Your task to perform on an android device: Open Yahoo.com Image 0: 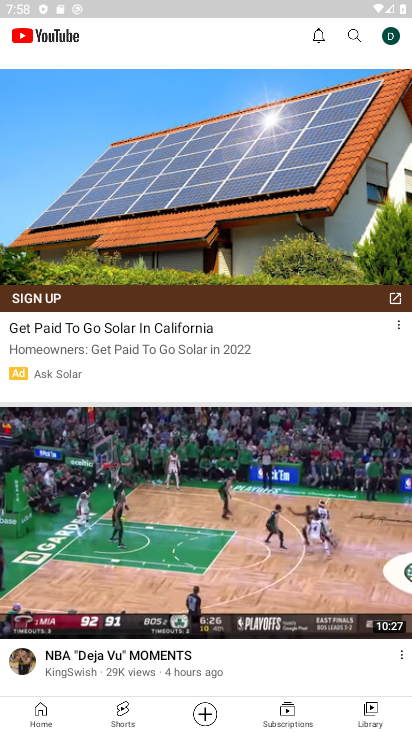
Step 0: press home button
Your task to perform on an android device: Open Yahoo.com Image 1: 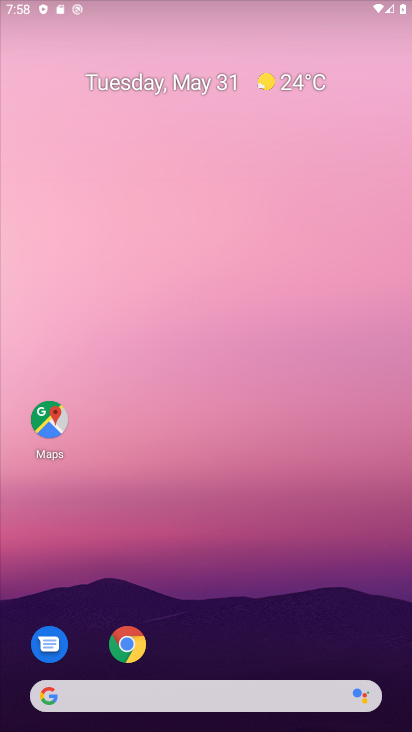
Step 1: drag from (278, 593) to (309, 147)
Your task to perform on an android device: Open Yahoo.com Image 2: 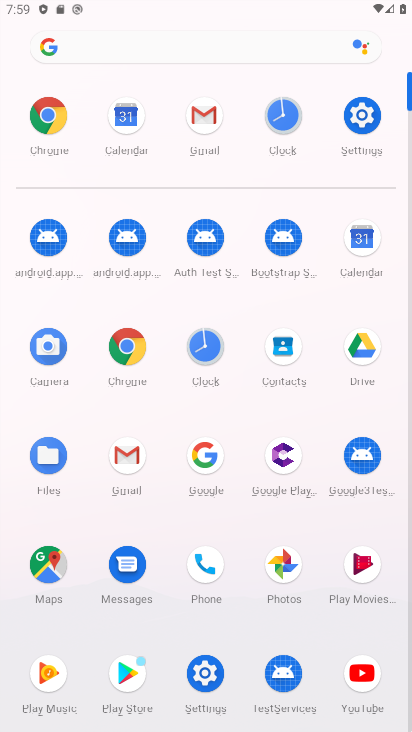
Step 2: click (41, 131)
Your task to perform on an android device: Open Yahoo.com Image 3: 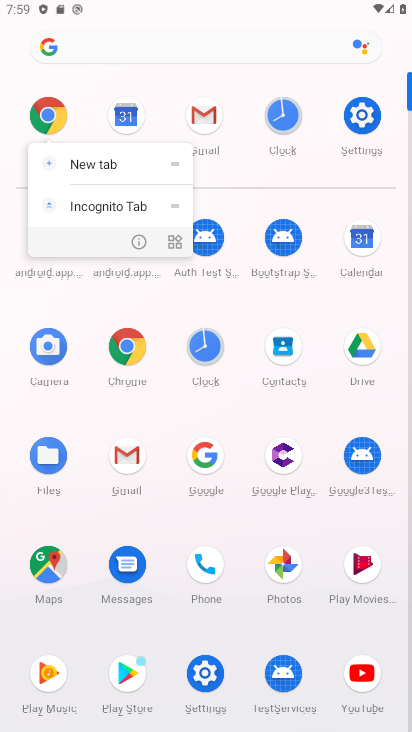
Step 3: click (50, 127)
Your task to perform on an android device: Open Yahoo.com Image 4: 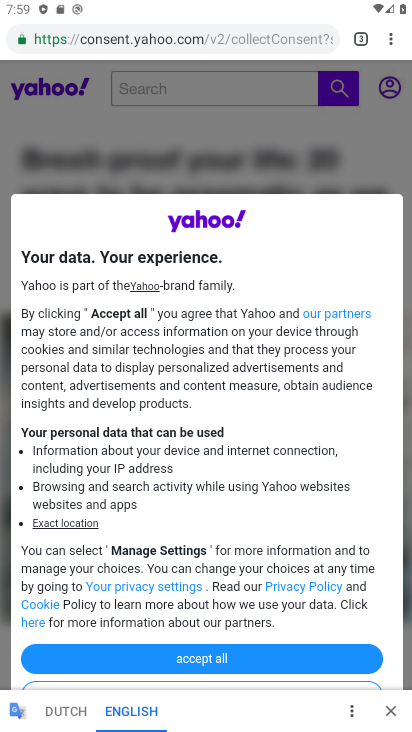
Step 4: click (159, 39)
Your task to perform on an android device: Open Yahoo.com Image 5: 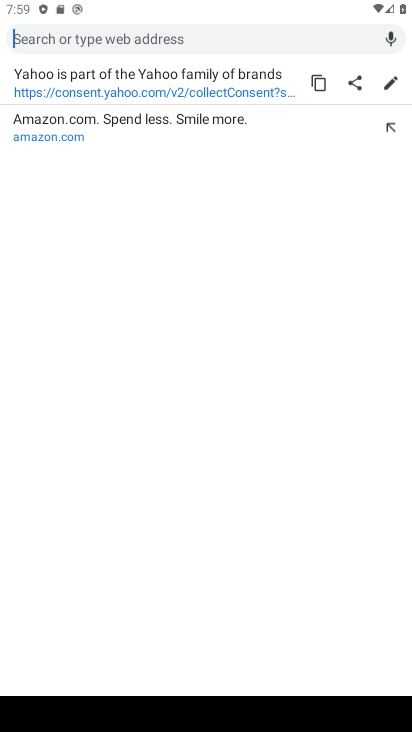
Step 5: type "yahoo.com"
Your task to perform on an android device: Open Yahoo.com Image 6: 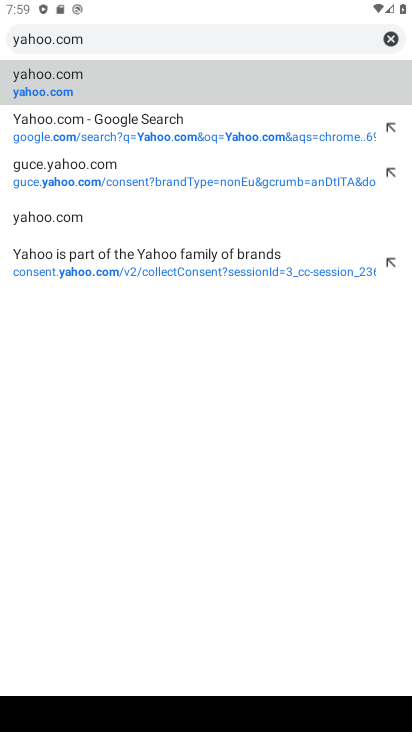
Step 6: click (43, 84)
Your task to perform on an android device: Open Yahoo.com Image 7: 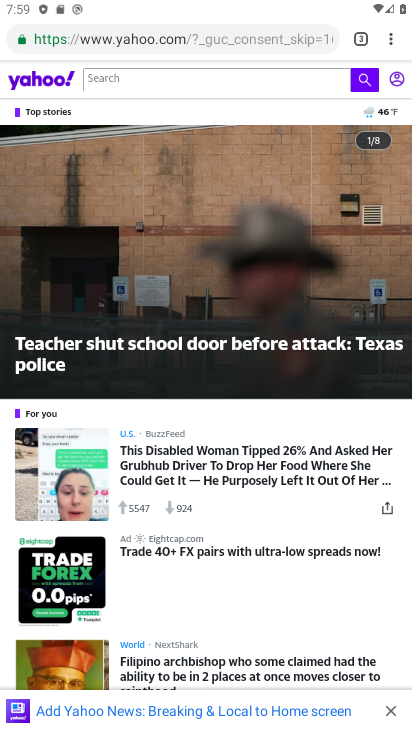
Step 7: task complete